Your task to perform on an android device: turn off javascript in the chrome app Image 0: 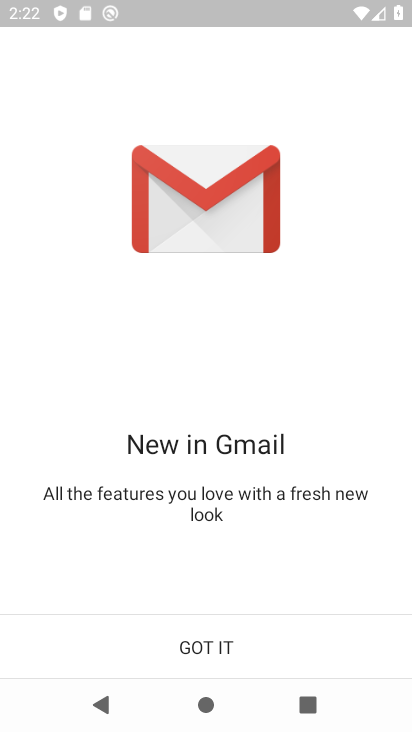
Step 0: press back button
Your task to perform on an android device: turn off javascript in the chrome app Image 1: 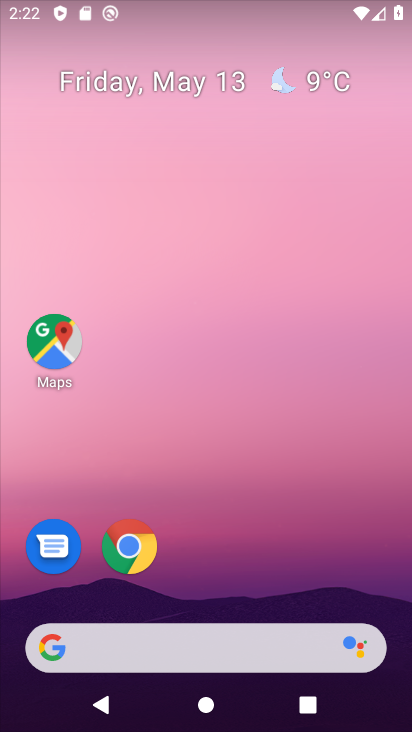
Step 1: drag from (282, 535) to (241, 18)
Your task to perform on an android device: turn off javascript in the chrome app Image 2: 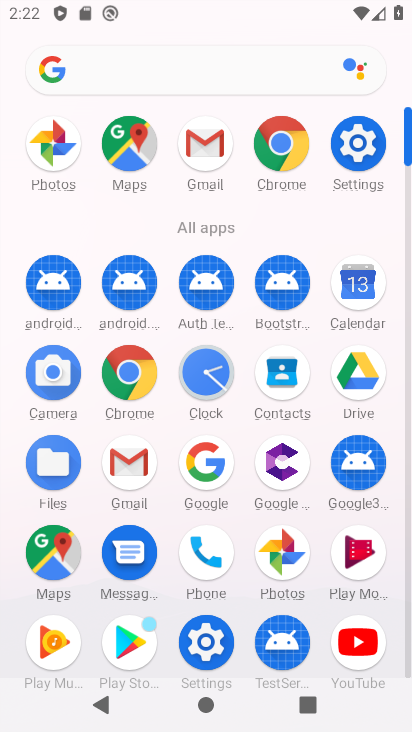
Step 2: drag from (0, 601) to (12, 291)
Your task to perform on an android device: turn off javascript in the chrome app Image 3: 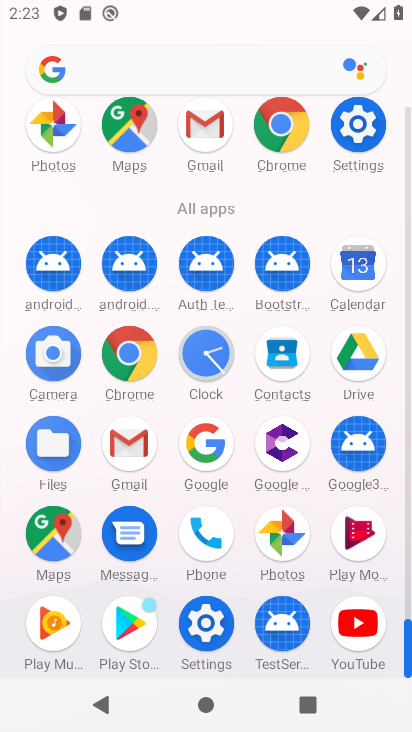
Step 3: click (128, 353)
Your task to perform on an android device: turn off javascript in the chrome app Image 4: 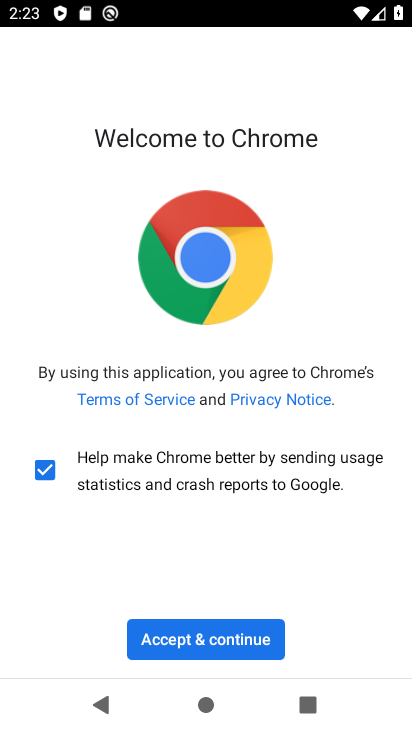
Step 4: click (188, 635)
Your task to perform on an android device: turn off javascript in the chrome app Image 5: 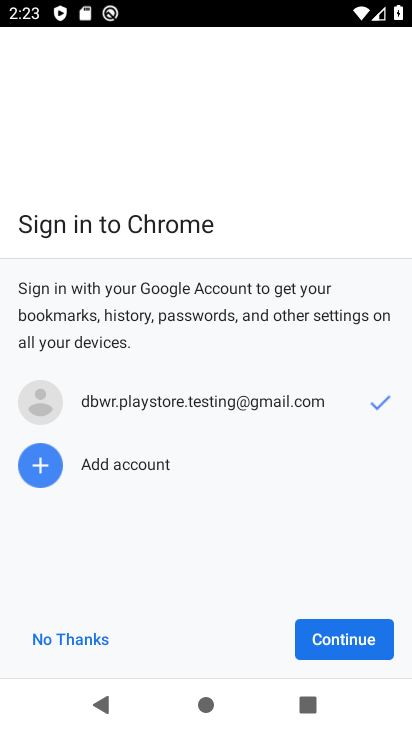
Step 5: click (347, 638)
Your task to perform on an android device: turn off javascript in the chrome app Image 6: 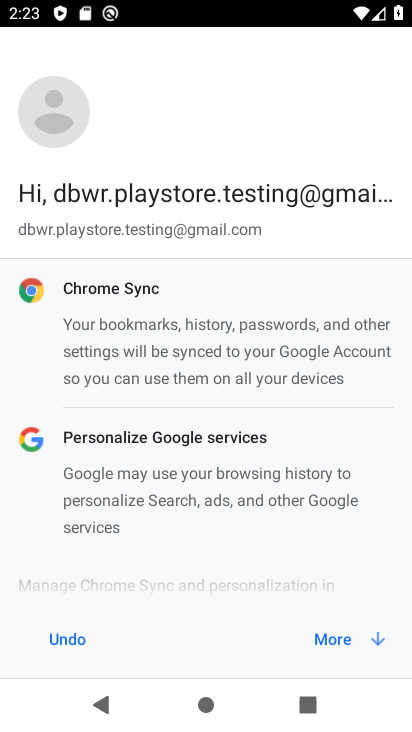
Step 6: click (347, 638)
Your task to perform on an android device: turn off javascript in the chrome app Image 7: 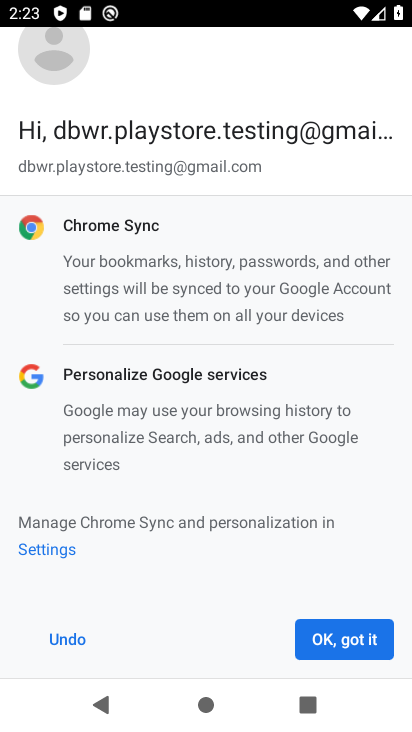
Step 7: click (347, 638)
Your task to perform on an android device: turn off javascript in the chrome app Image 8: 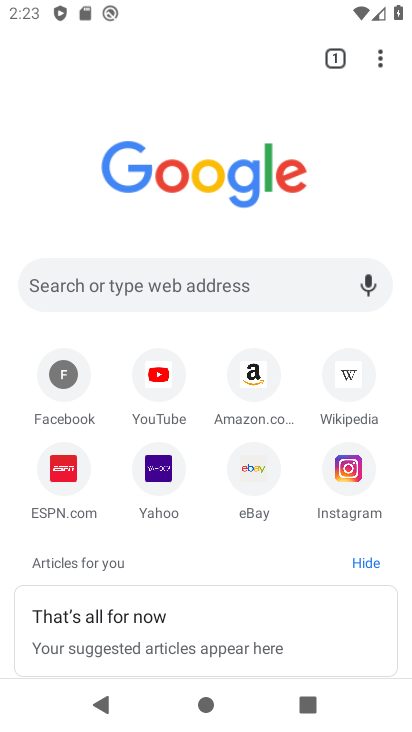
Step 8: click (380, 60)
Your task to perform on an android device: turn off javascript in the chrome app Image 9: 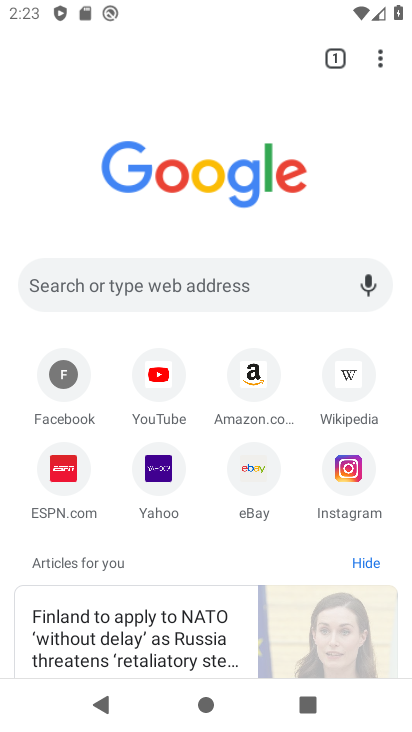
Step 9: drag from (380, 60) to (192, 489)
Your task to perform on an android device: turn off javascript in the chrome app Image 10: 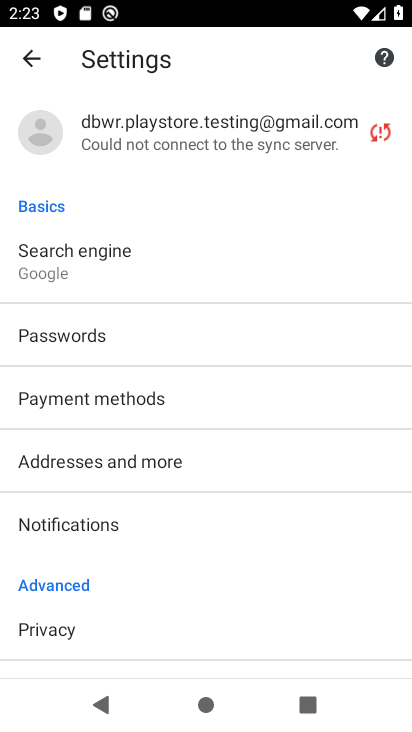
Step 10: drag from (154, 561) to (187, 199)
Your task to perform on an android device: turn off javascript in the chrome app Image 11: 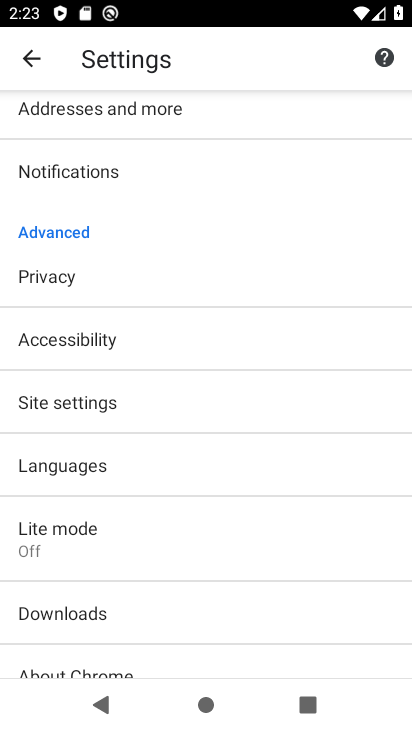
Step 11: click (128, 411)
Your task to perform on an android device: turn off javascript in the chrome app Image 12: 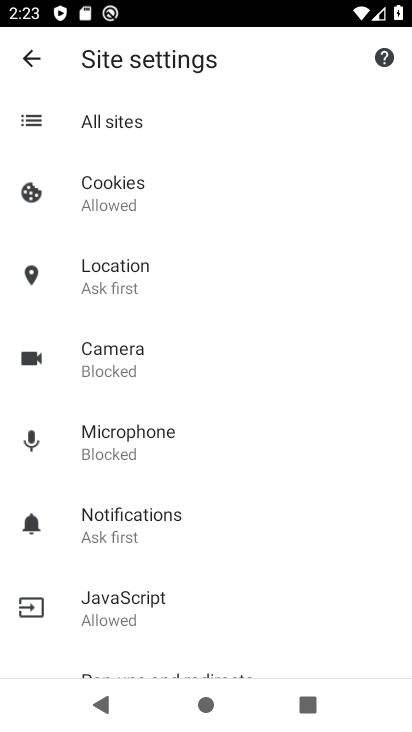
Step 12: click (173, 591)
Your task to perform on an android device: turn off javascript in the chrome app Image 13: 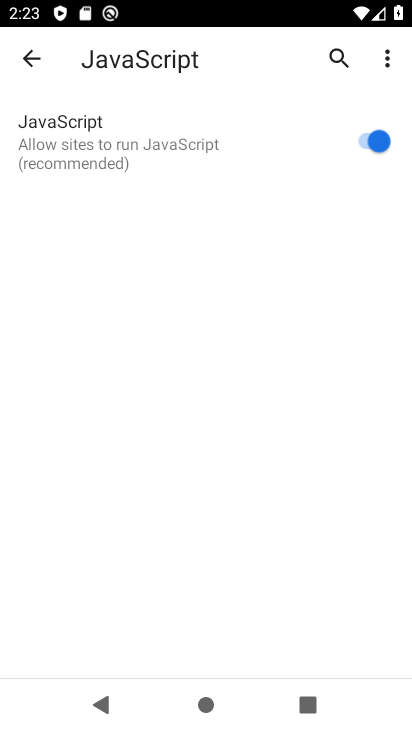
Step 13: click (360, 128)
Your task to perform on an android device: turn off javascript in the chrome app Image 14: 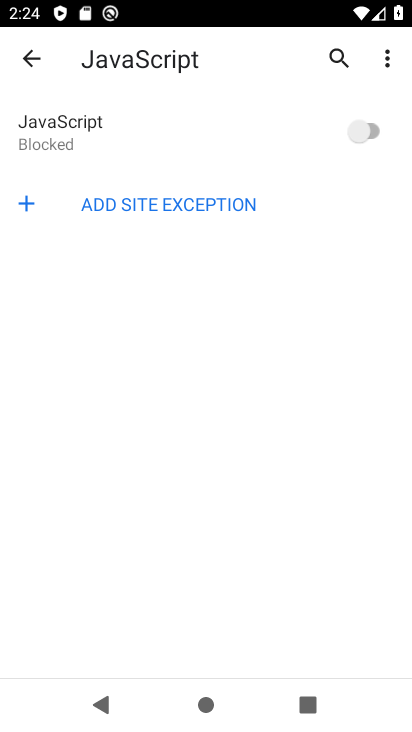
Step 14: task complete